Your task to perform on an android device: Open Wikipedia Image 0: 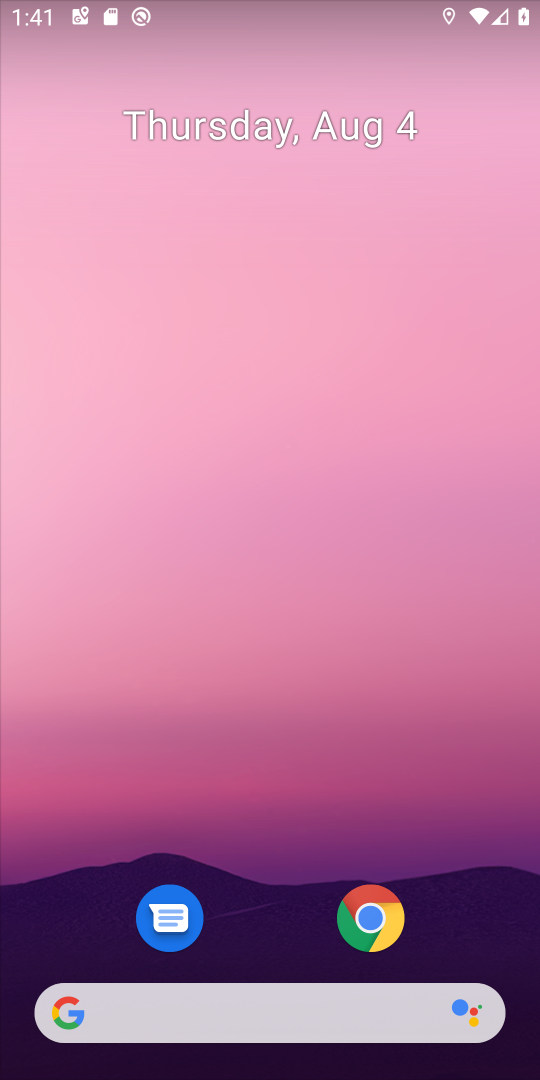
Step 0: click (356, 915)
Your task to perform on an android device: Open Wikipedia Image 1: 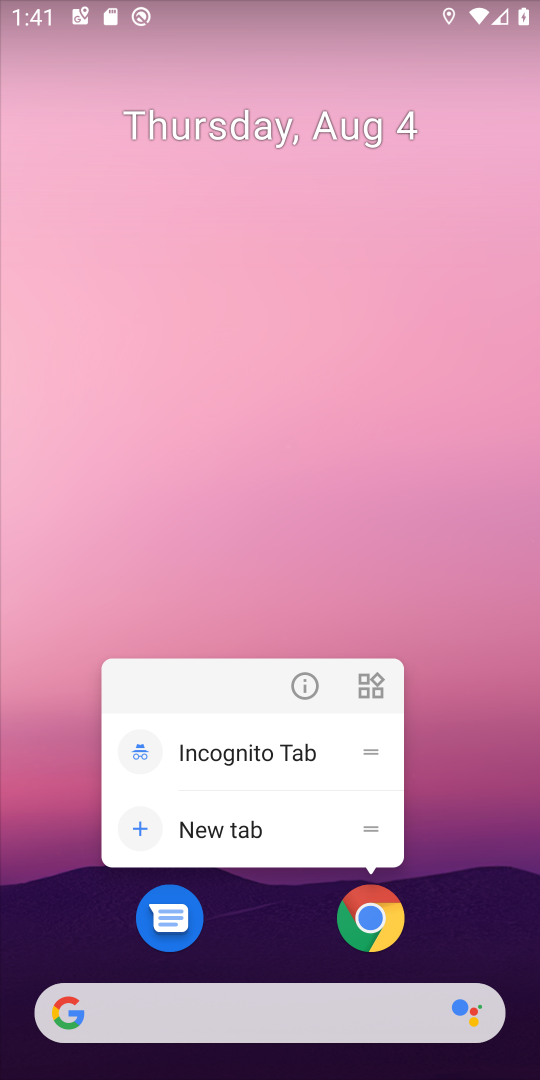
Step 1: click (375, 954)
Your task to perform on an android device: Open Wikipedia Image 2: 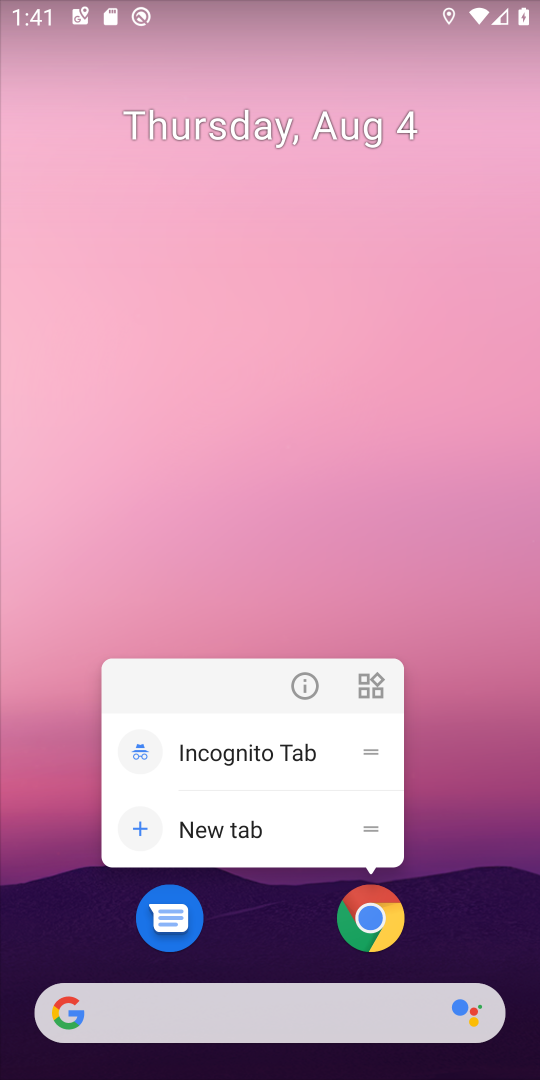
Step 2: click (383, 904)
Your task to perform on an android device: Open Wikipedia Image 3: 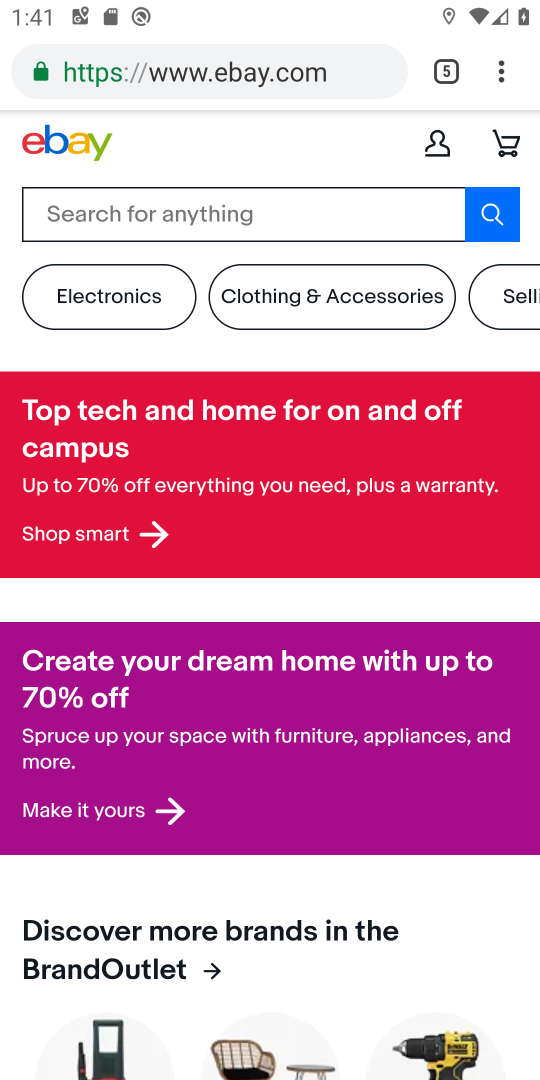
Step 3: click (449, 76)
Your task to perform on an android device: Open Wikipedia Image 4: 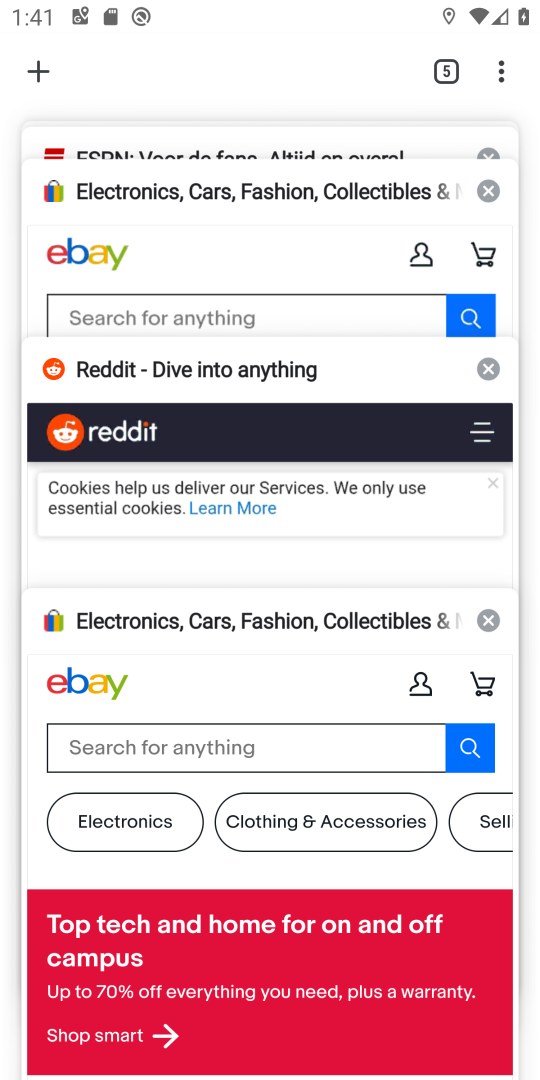
Step 4: click (40, 68)
Your task to perform on an android device: Open Wikipedia Image 5: 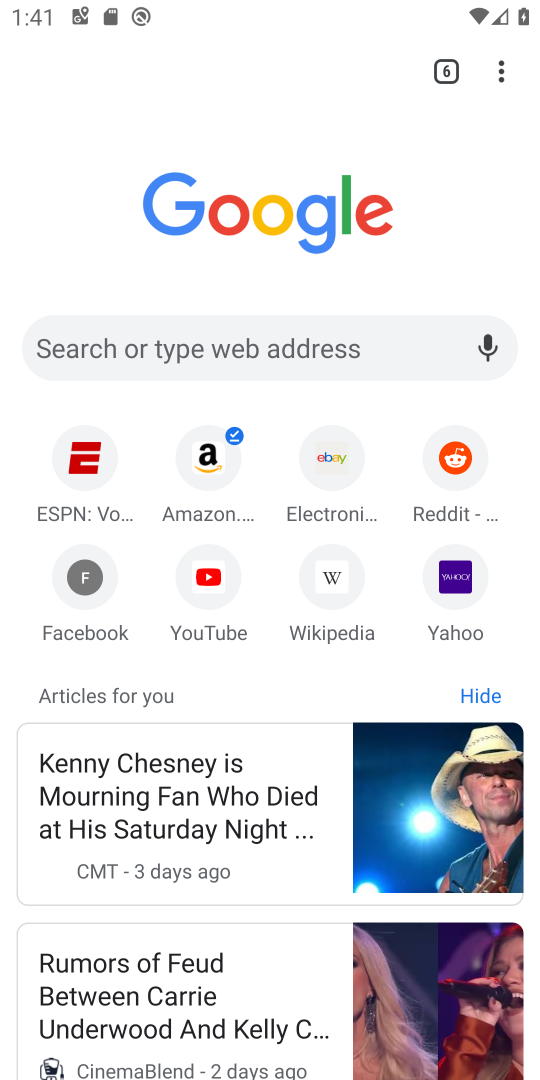
Step 5: click (346, 565)
Your task to perform on an android device: Open Wikipedia Image 6: 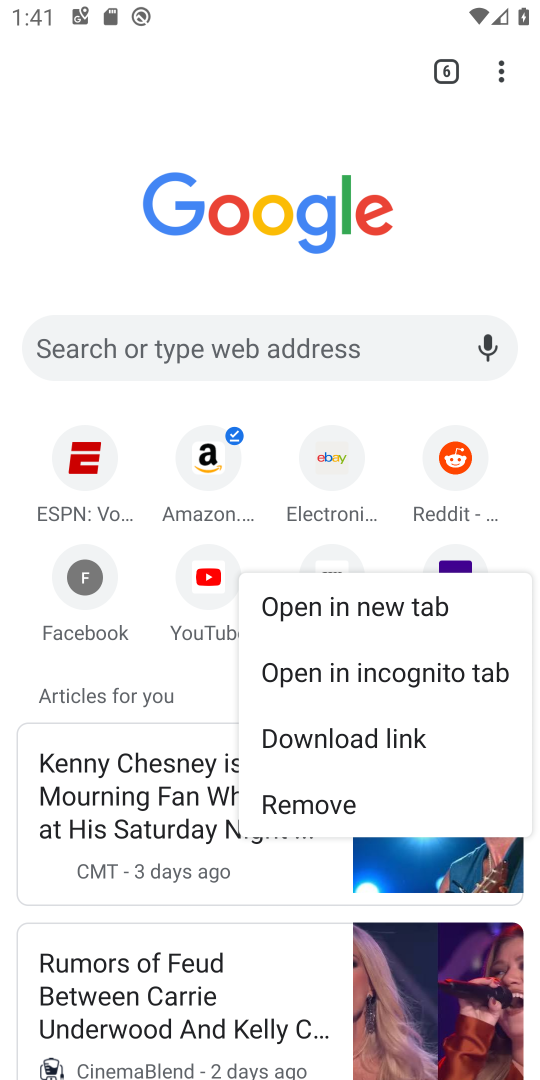
Step 6: click (343, 549)
Your task to perform on an android device: Open Wikipedia Image 7: 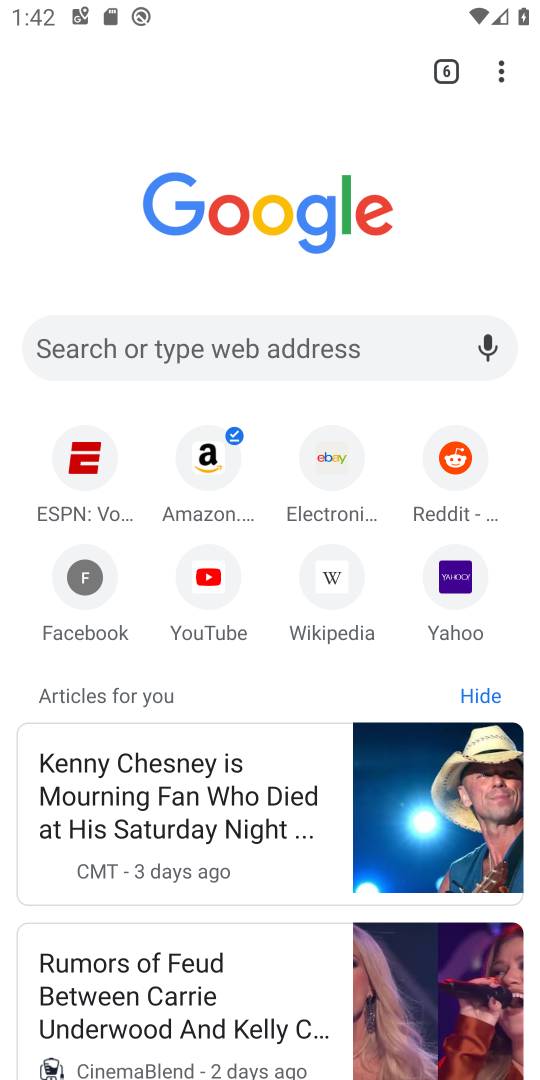
Step 7: click (338, 563)
Your task to perform on an android device: Open Wikipedia Image 8: 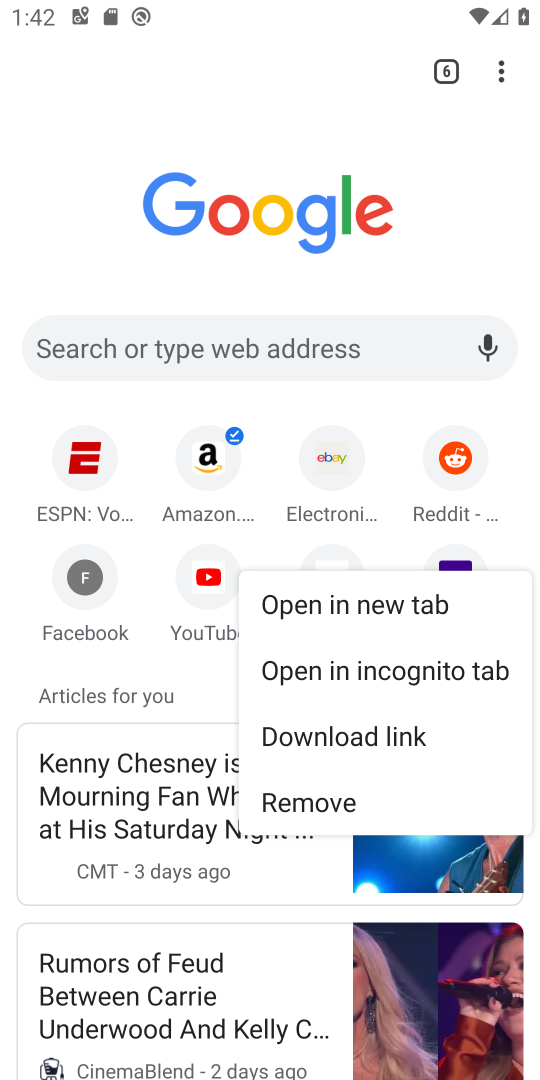
Step 8: click (337, 557)
Your task to perform on an android device: Open Wikipedia Image 9: 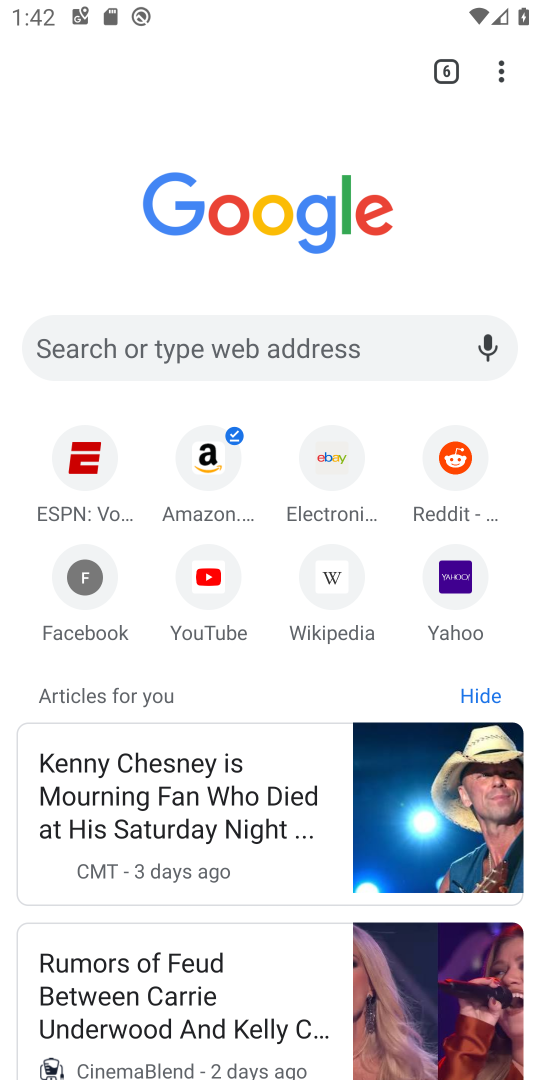
Step 9: click (342, 582)
Your task to perform on an android device: Open Wikipedia Image 10: 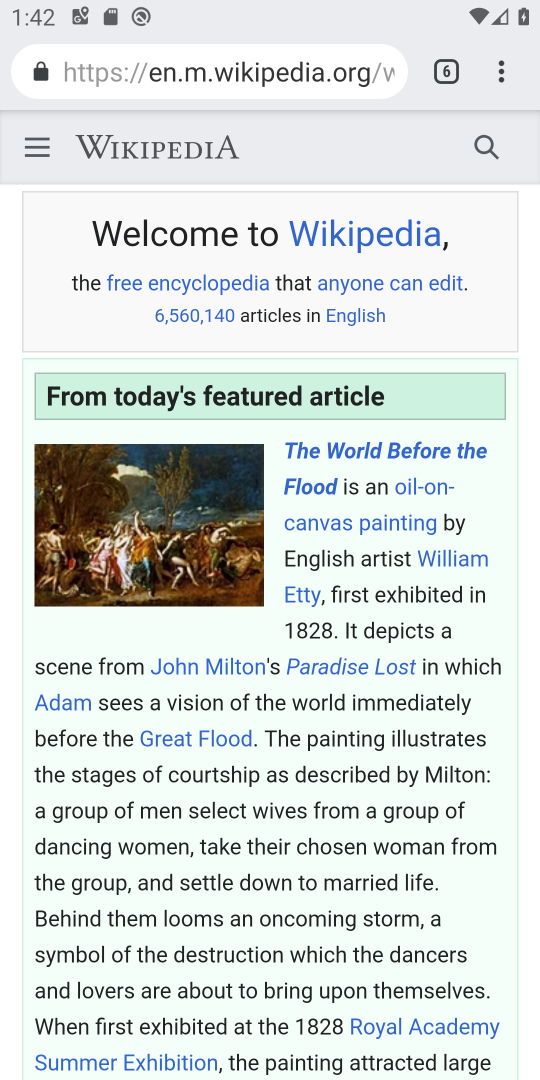
Step 10: task complete